Your task to perform on an android device: turn on improve location accuracy Image 0: 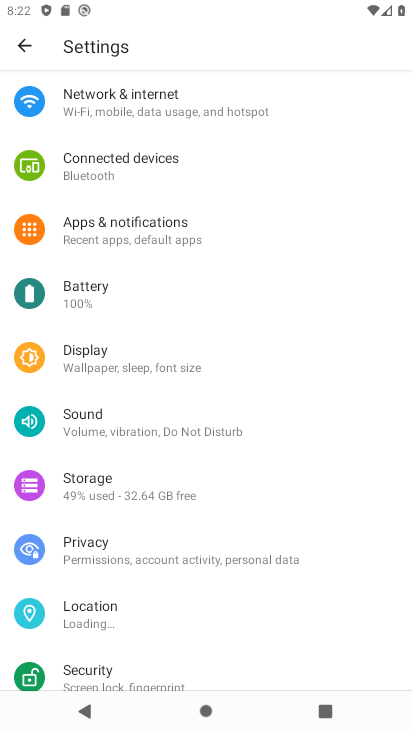
Step 0: press home button
Your task to perform on an android device: turn on improve location accuracy Image 1: 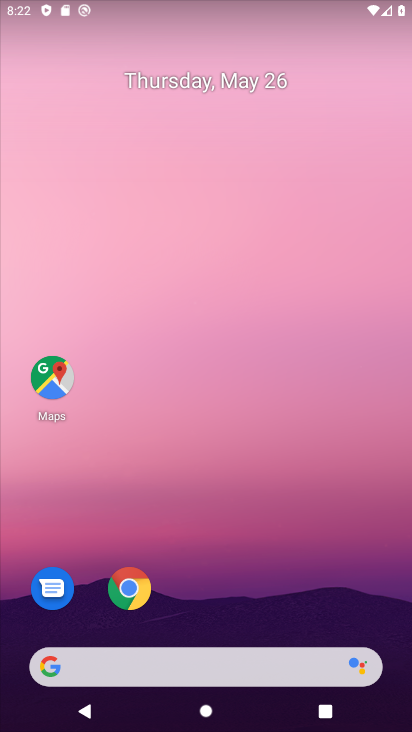
Step 1: drag from (384, 624) to (339, 0)
Your task to perform on an android device: turn on improve location accuracy Image 2: 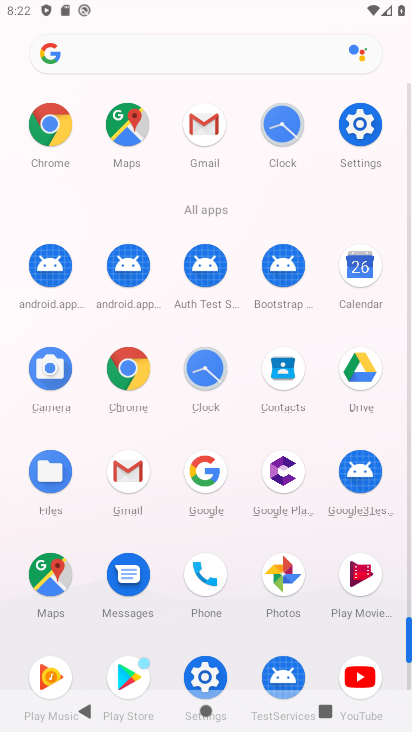
Step 2: click (210, 677)
Your task to perform on an android device: turn on improve location accuracy Image 3: 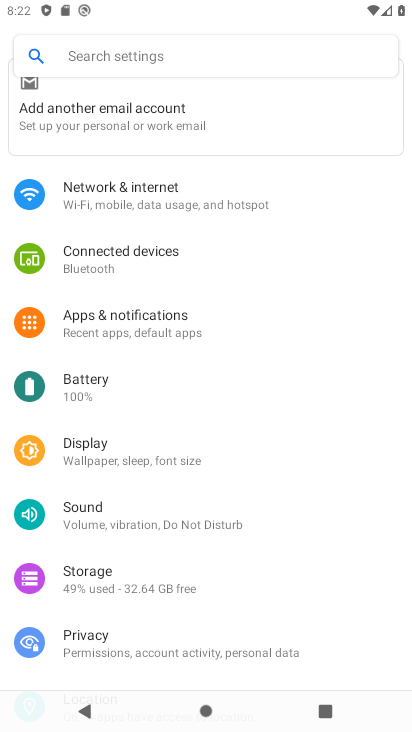
Step 3: drag from (275, 615) to (277, 242)
Your task to perform on an android device: turn on improve location accuracy Image 4: 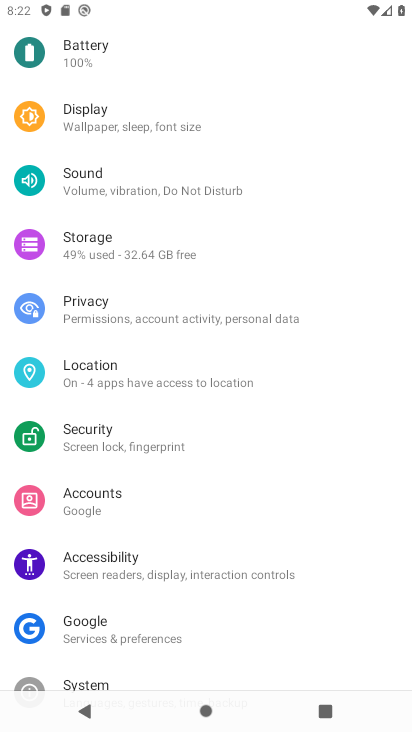
Step 4: click (110, 369)
Your task to perform on an android device: turn on improve location accuracy Image 5: 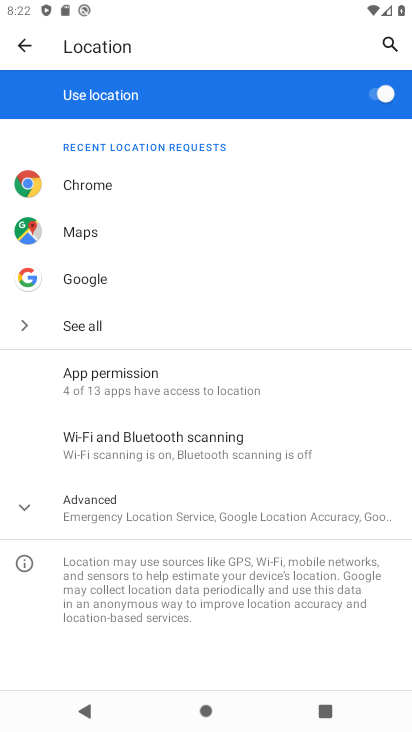
Step 5: click (16, 505)
Your task to perform on an android device: turn on improve location accuracy Image 6: 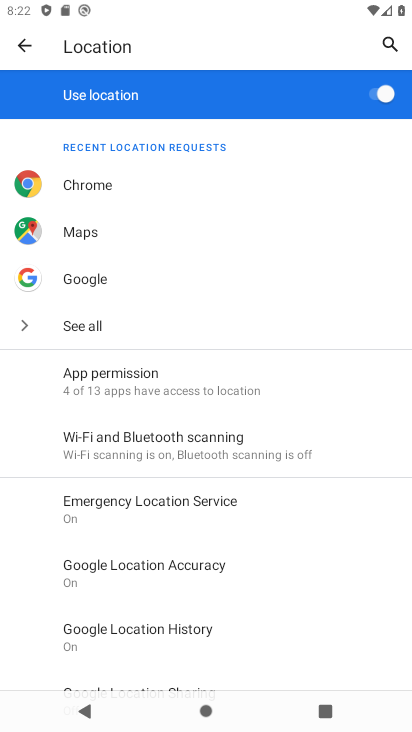
Step 6: click (124, 567)
Your task to perform on an android device: turn on improve location accuracy Image 7: 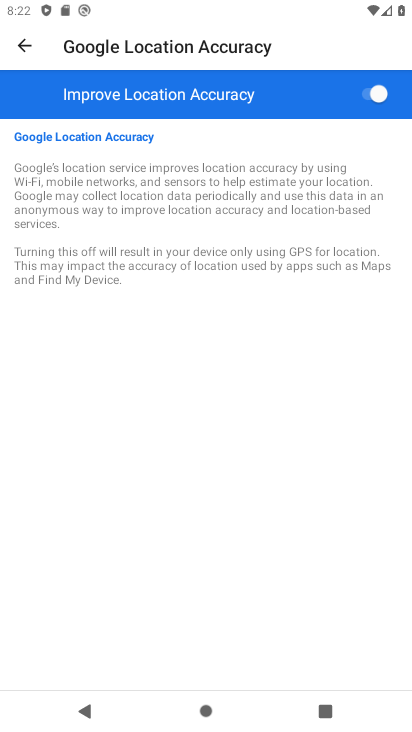
Step 7: task complete